Your task to perform on an android device: Open Chrome and go to settings Image 0: 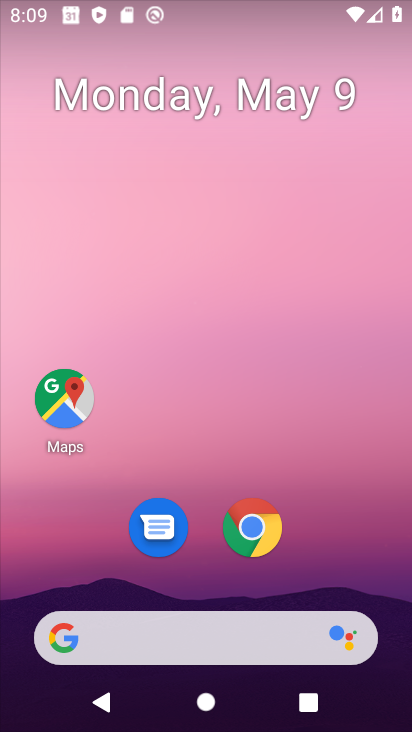
Step 0: click (246, 525)
Your task to perform on an android device: Open Chrome and go to settings Image 1: 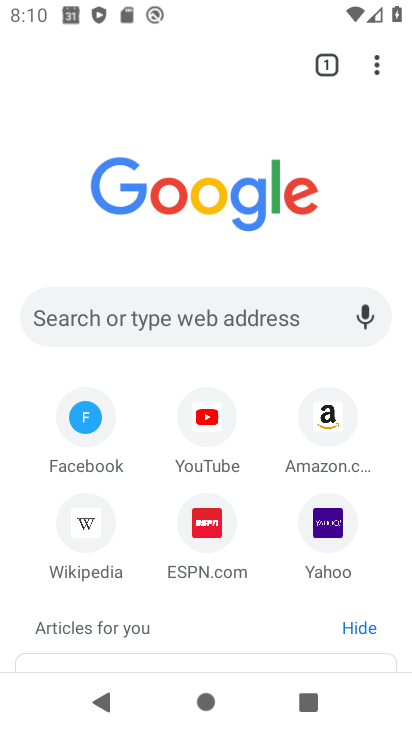
Step 1: click (374, 62)
Your task to perform on an android device: Open Chrome and go to settings Image 2: 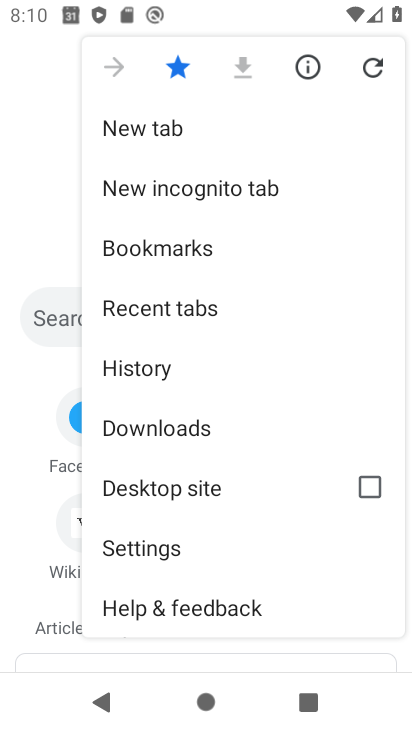
Step 2: click (194, 550)
Your task to perform on an android device: Open Chrome and go to settings Image 3: 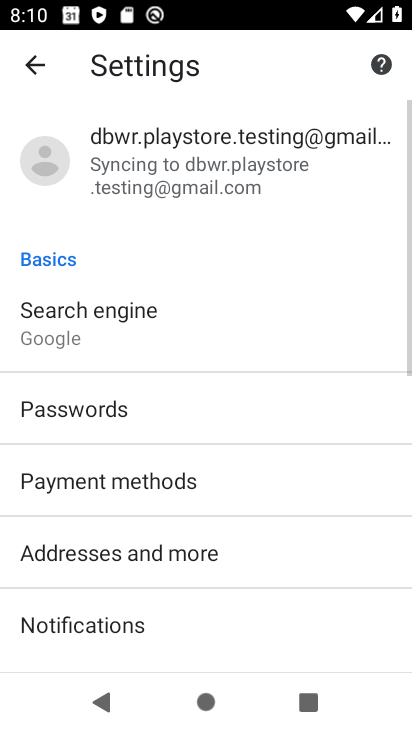
Step 3: task complete